Your task to perform on an android device: set default search engine in the chrome app Image 0: 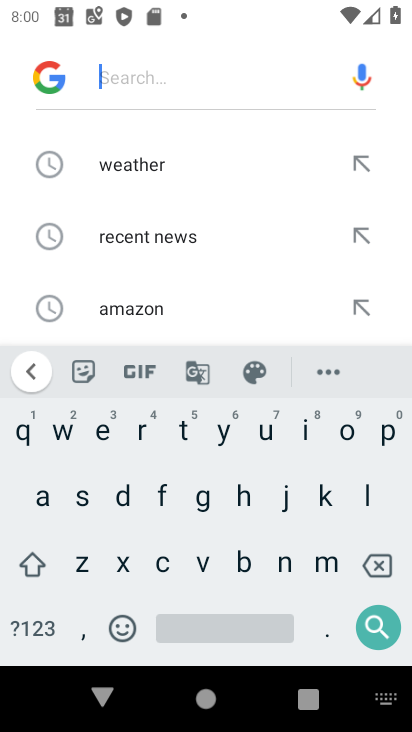
Step 0: press home button
Your task to perform on an android device: set default search engine in the chrome app Image 1: 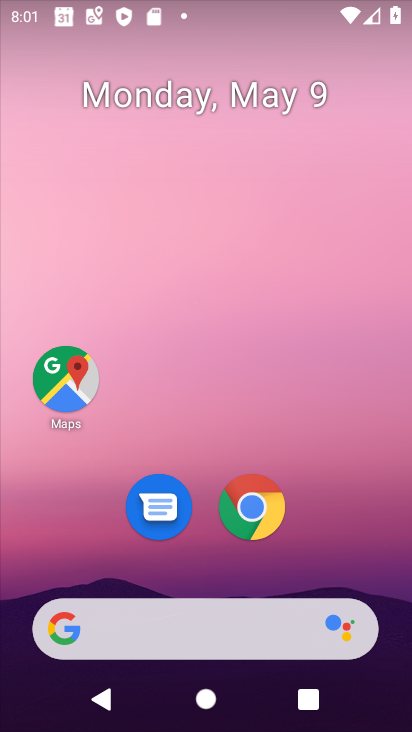
Step 1: click (268, 512)
Your task to perform on an android device: set default search engine in the chrome app Image 2: 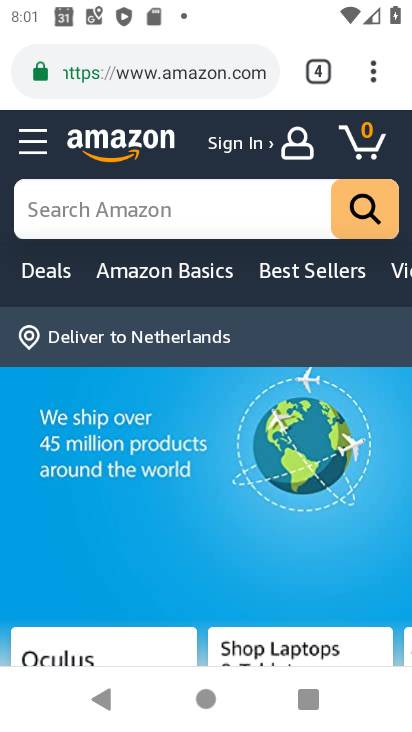
Step 2: click (369, 88)
Your task to perform on an android device: set default search engine in the chrome app Image 3: 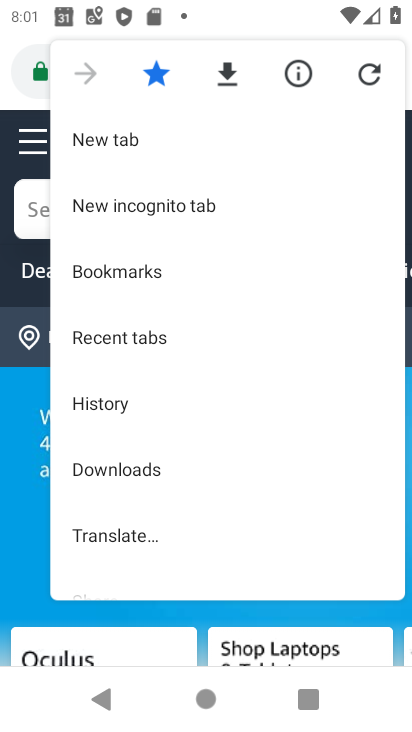
Step 3: drag from (129, 576) to (224, 336)
Your task to perform on an android device: set default search engine in the chrome app Image 4: 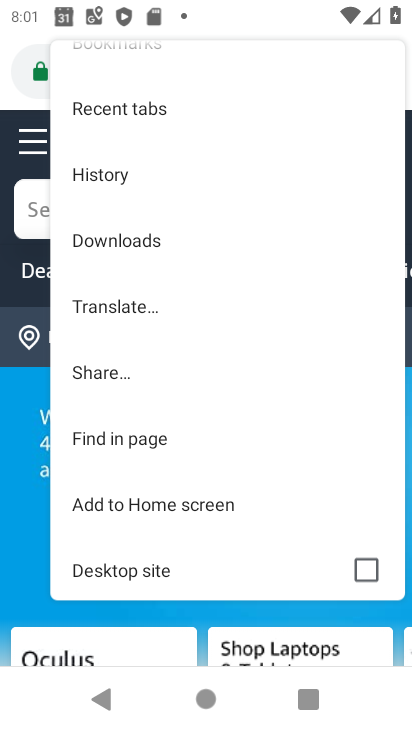
Step 4: drag from (171, 507) to (235, 332)
Your task to perform on an android device: set default search engine in the chrome app Image 5: 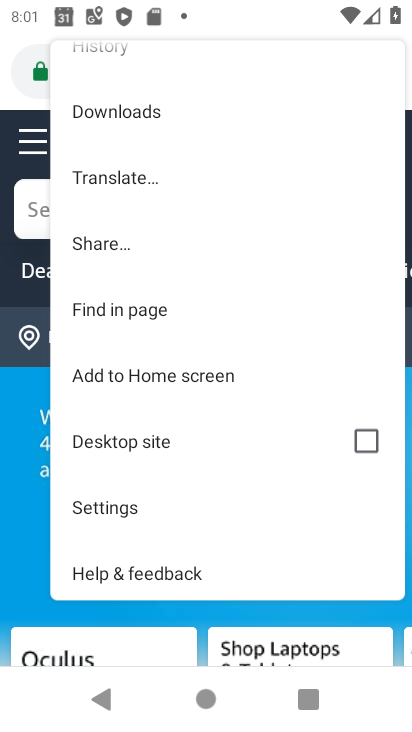
Step 5: click (130, 513)
Your task to perform on an android device: set default search engine in the chrome app Image 6: 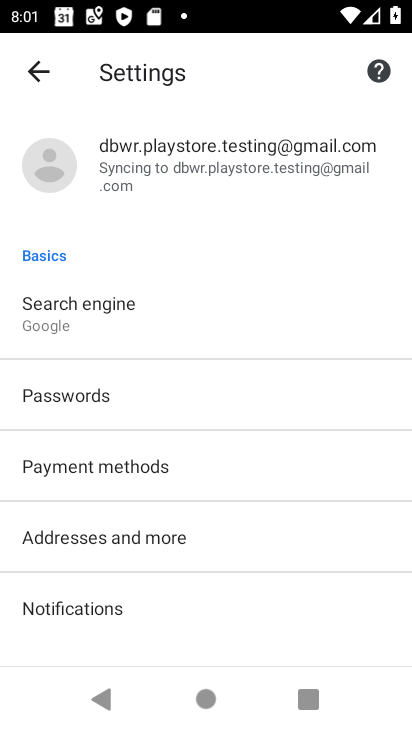
Step 6: click (136, 328)
Your task to perform on an android device: set default search engine in the chrome app Image 7: 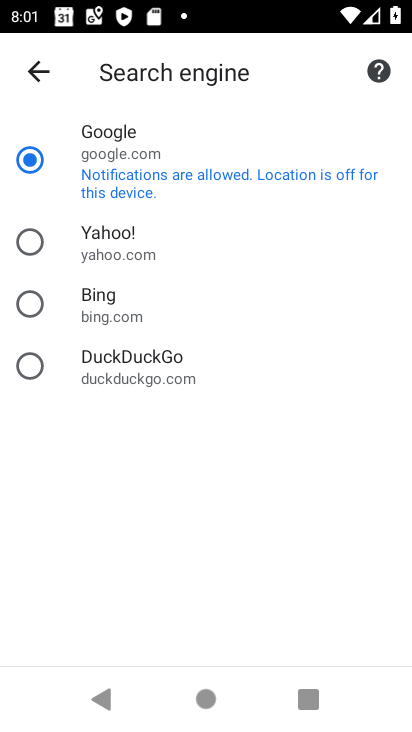
Step 7: task complete